Your task to perform on an android device: Clear the cart on bestbuy.com. Add sony triple a to the cart on bestbuy.com Image 0: 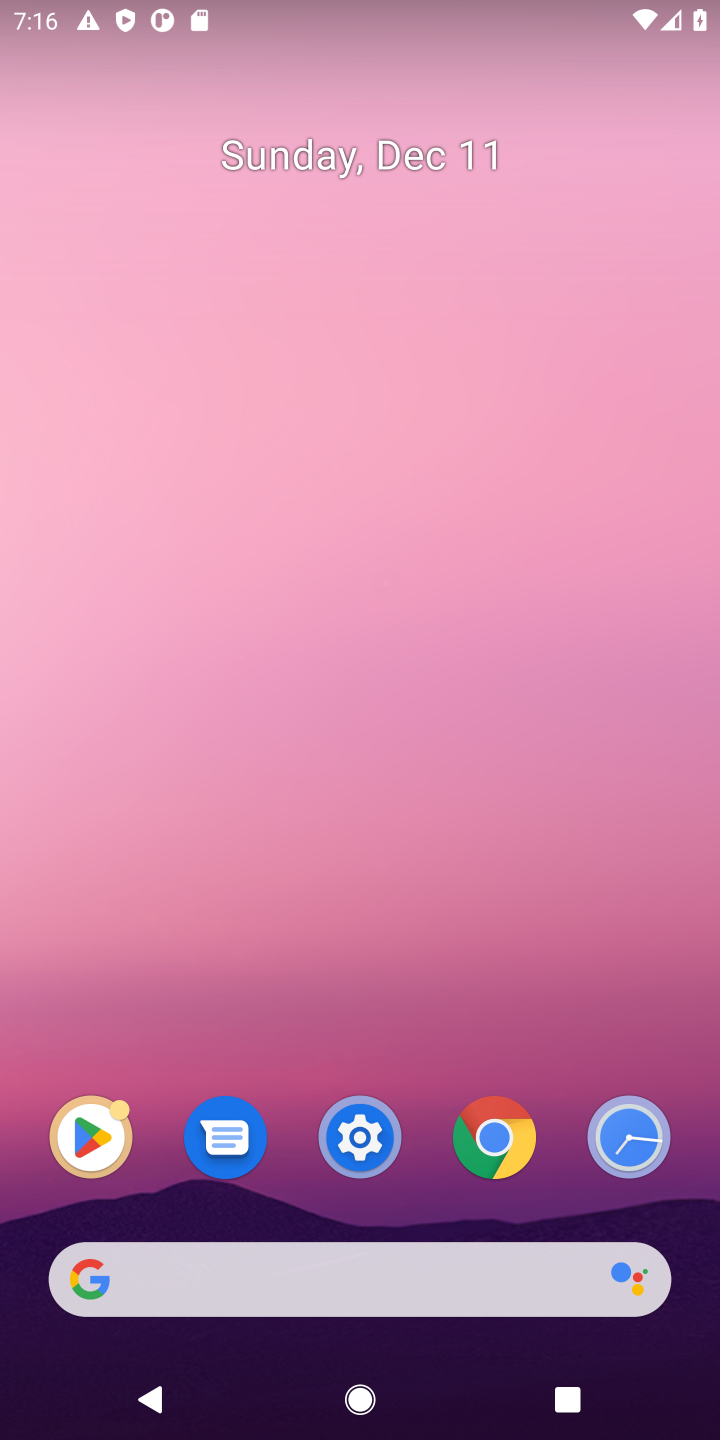
Step 0: click (511, 1138)
Your task to perform on an android device: Clear the cart on bestbuy.com. Add sony triple a to the cart on bestbuy.com Image 1: 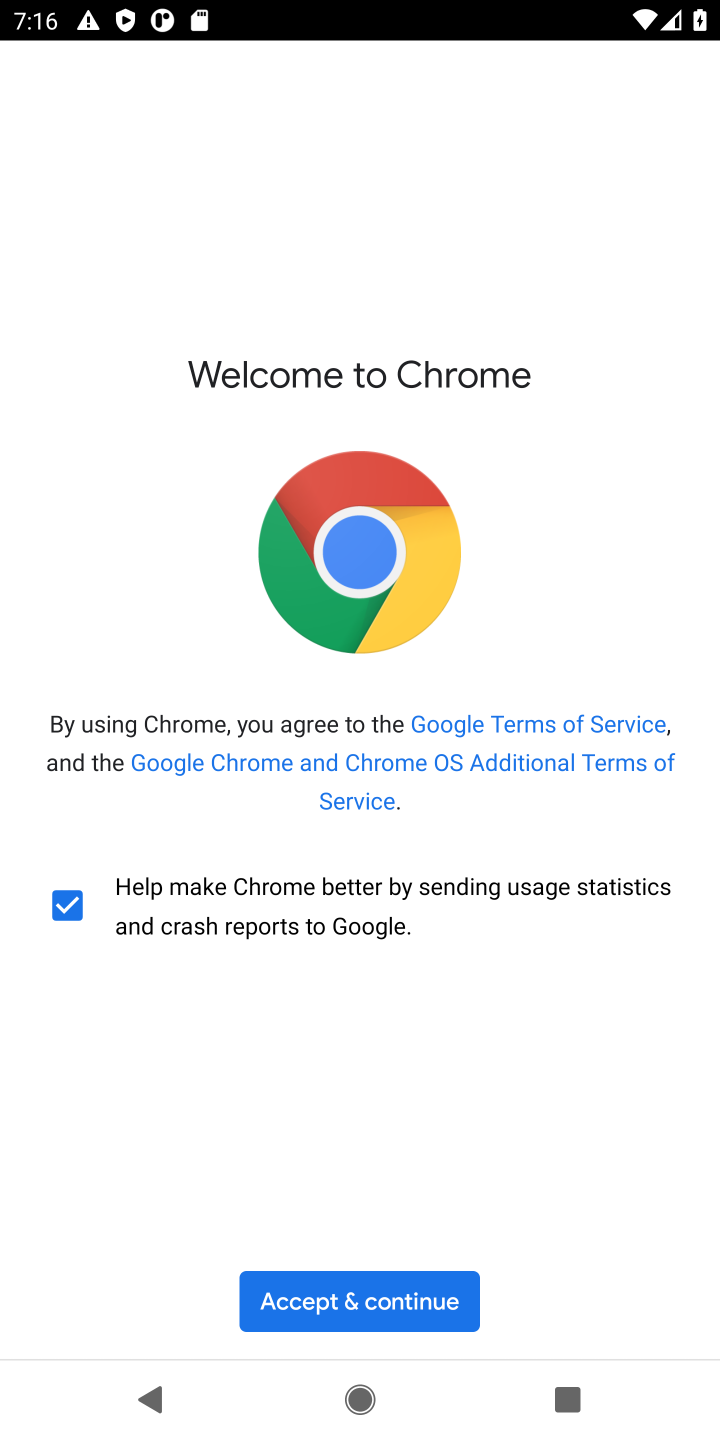
Step 1: click (346, 1304)
Your task to perform on an android device: Clear the cart on bestbuy.com. Add sony triple a to the cart on bestbuy.com Image 2: 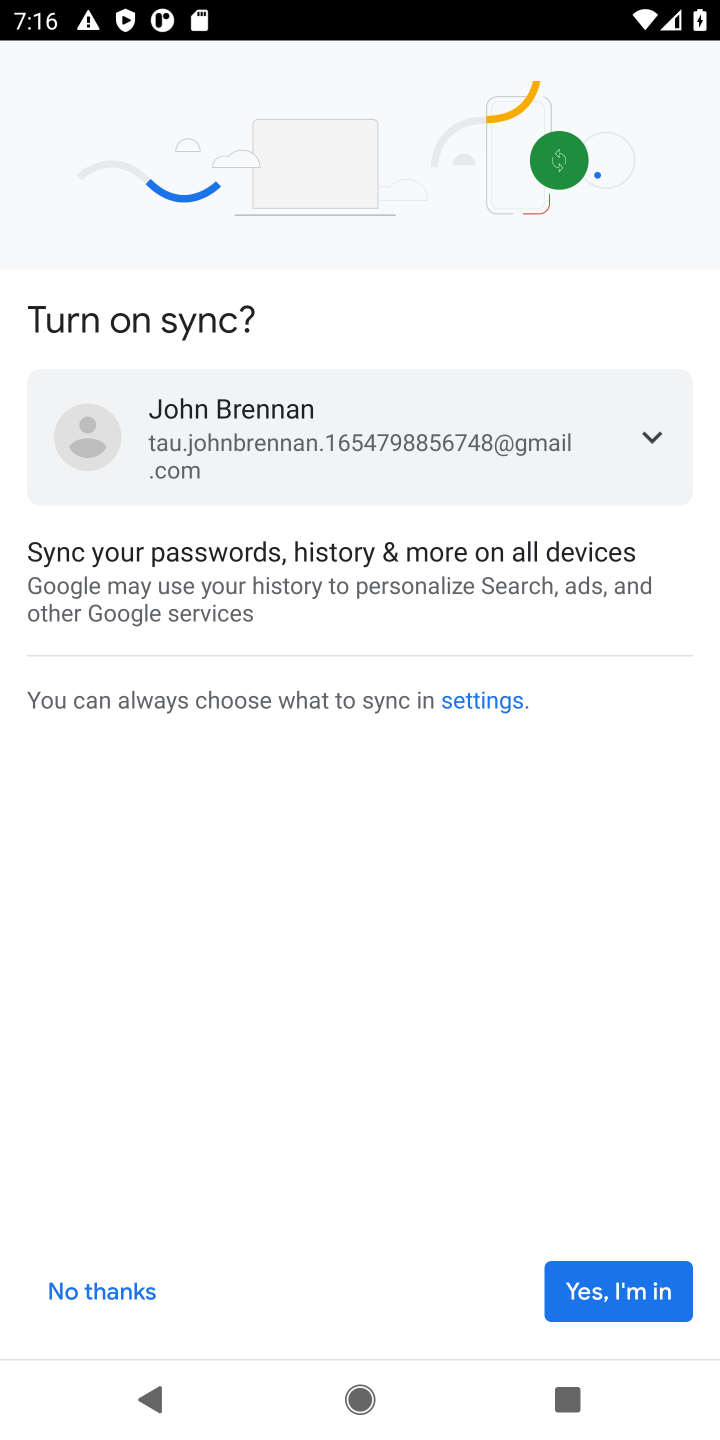
Step 2: click (644, 1289)
Your task to perform on an android device: Clear the cart on bestbuy.com. Add sony triple a to the cart on bestbuy.com Image 3: 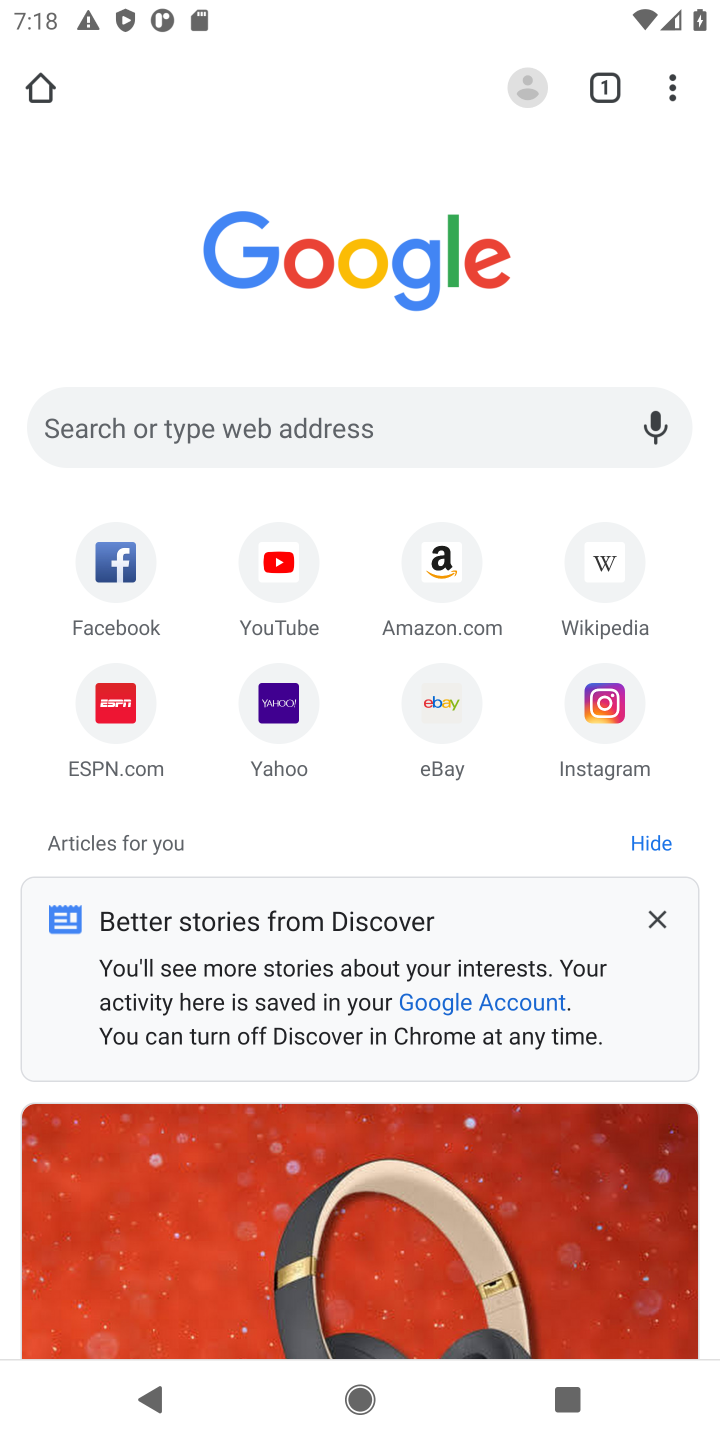
Step 3: click (366, 435)
Your task to perform on an android device: Clear the cart on bestbuy.com. Add sony triple a to the cart on bestbuy.com Image 4: 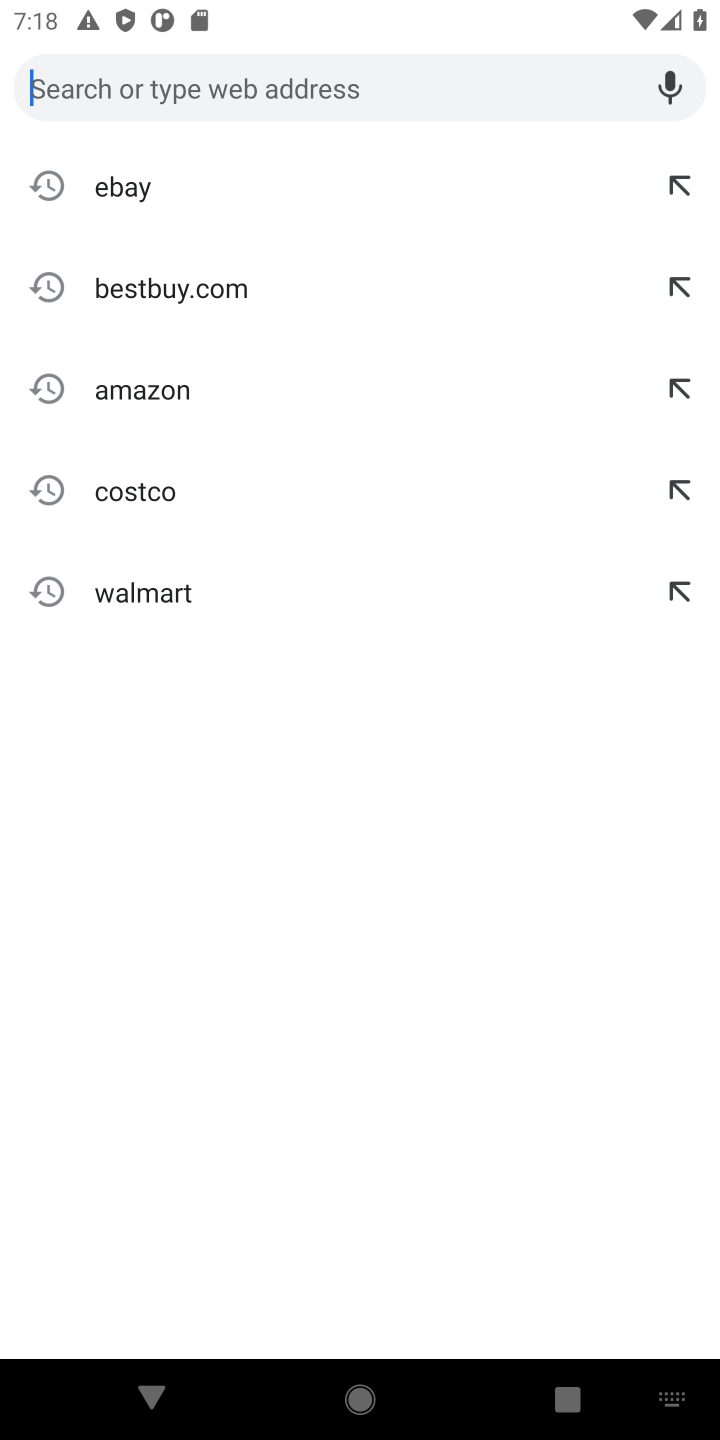
Step 4: click (143, 297)
Your task to perform on an android device: Clear the cart on bestbuy.com. Add sony triple a to the cart on bestbuy.com Image 5: 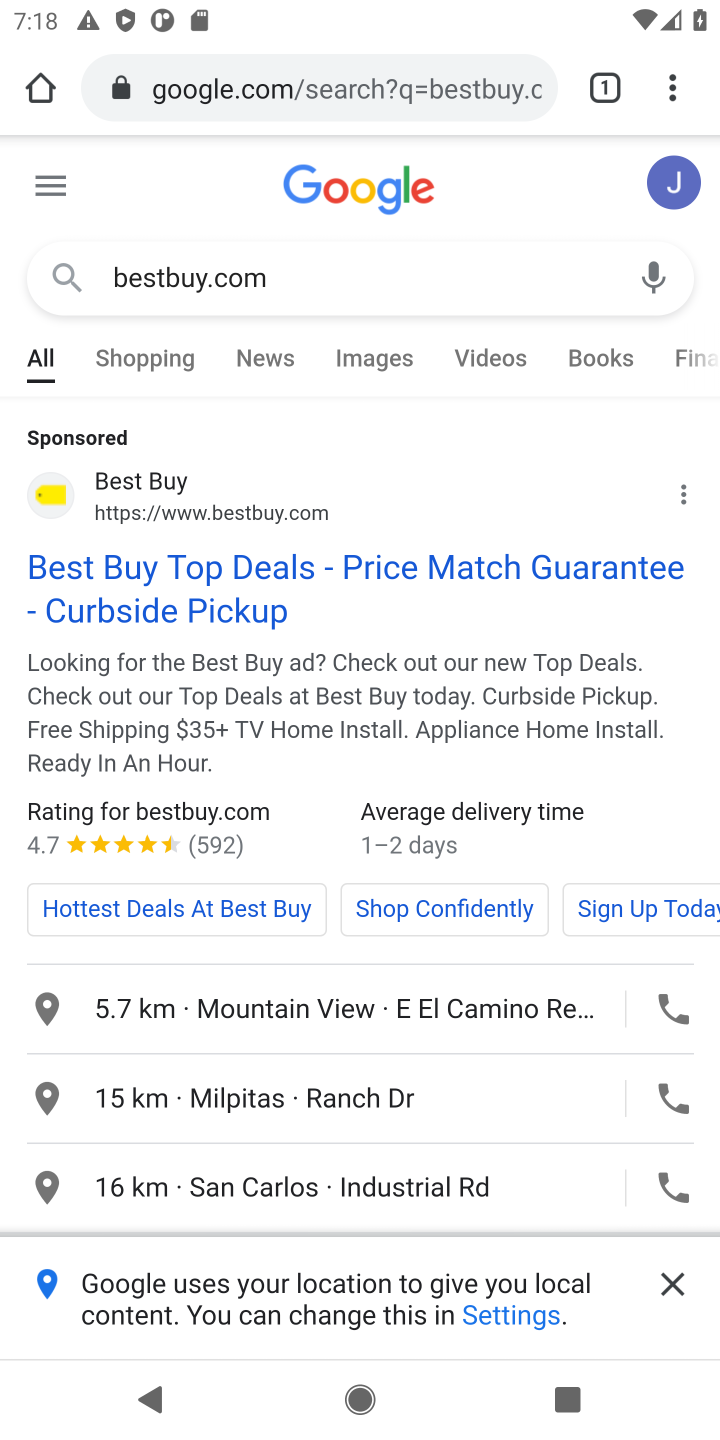
Step 5: click (243, 578)
Your task to perform on an android device: Clear the cart on bestbuy.com. Add sony triple a to the cart on bestbuy.com Image 6: 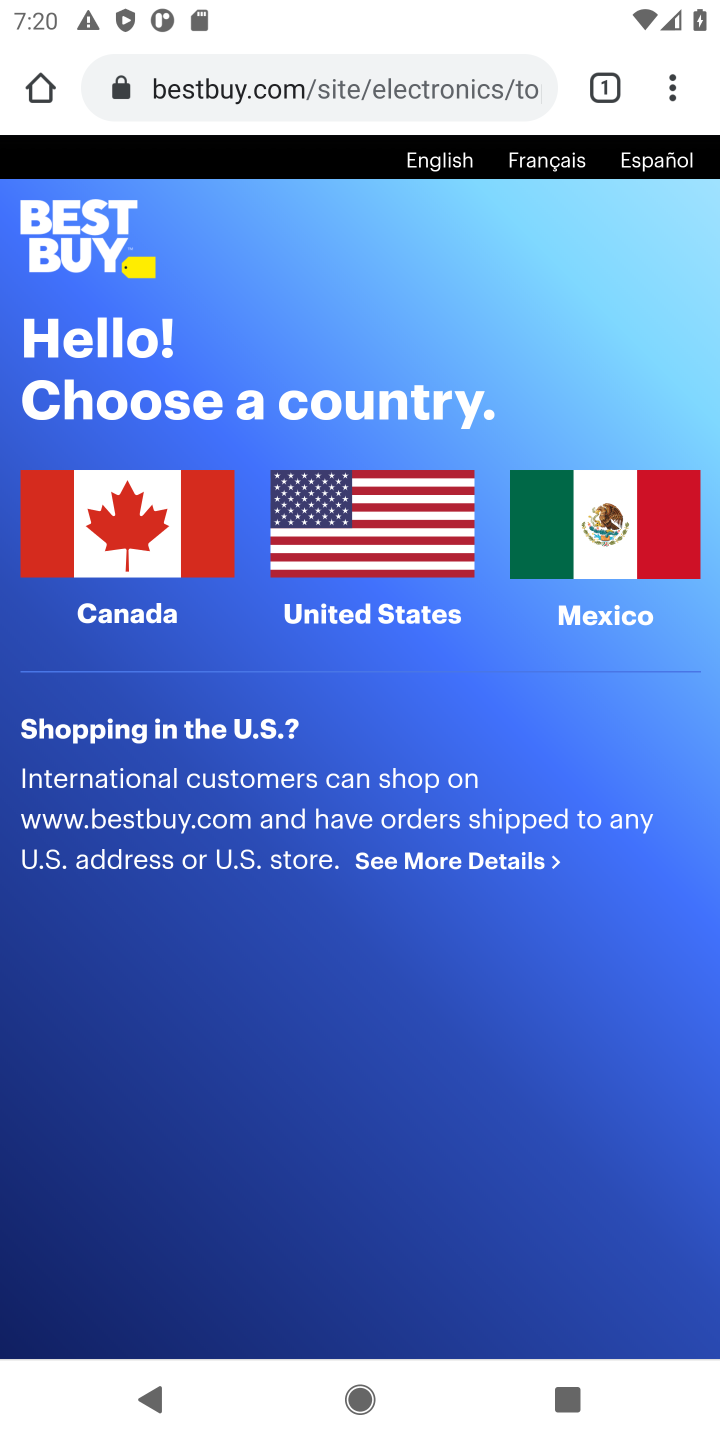
Step 6: click (312, 548)
Your task to perform on an android device: Clear the cart on bestbuy.com. Add sony triple a to the cart on bestbuy.com Image 7: 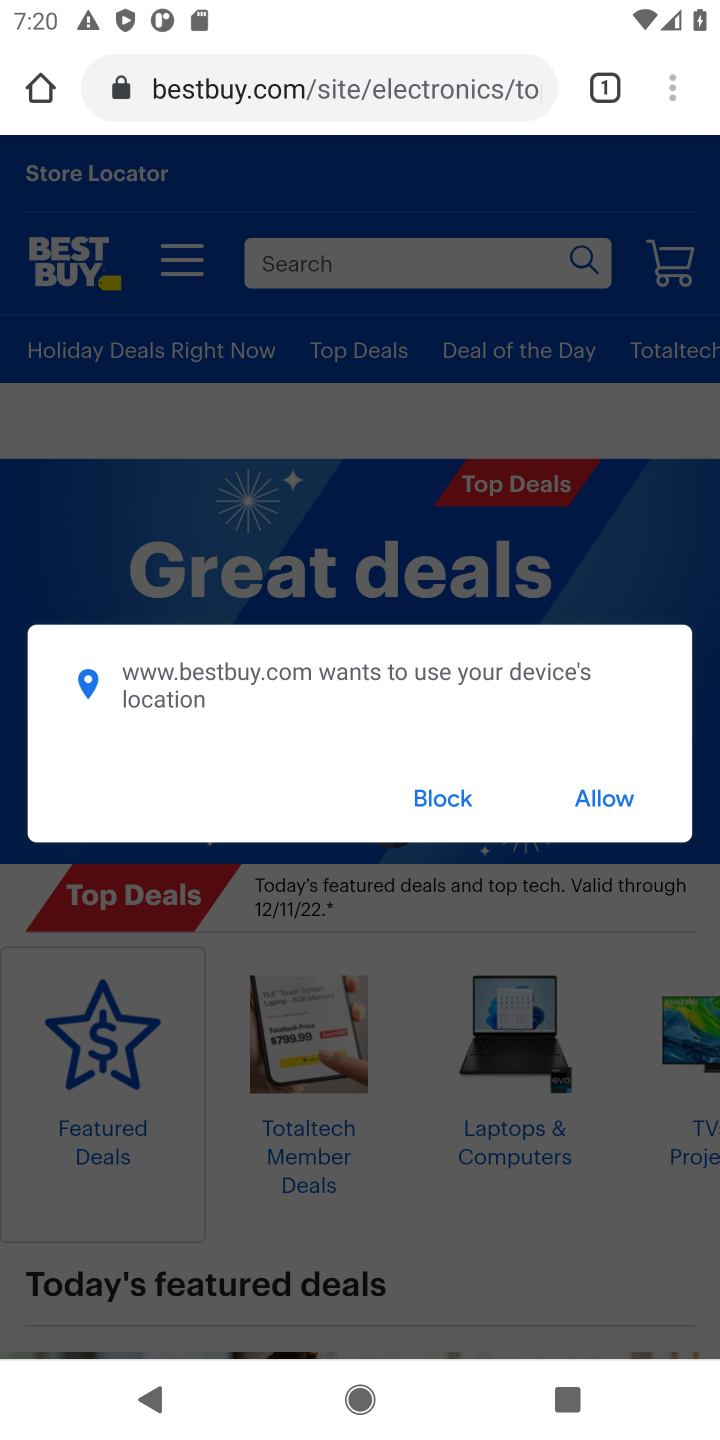
Step 7: click (675, 268)
Your task to perform on an android device: Clear the cart on bestbuy.com. Add sony triple a to the cart on bestbuy.com Image 8: 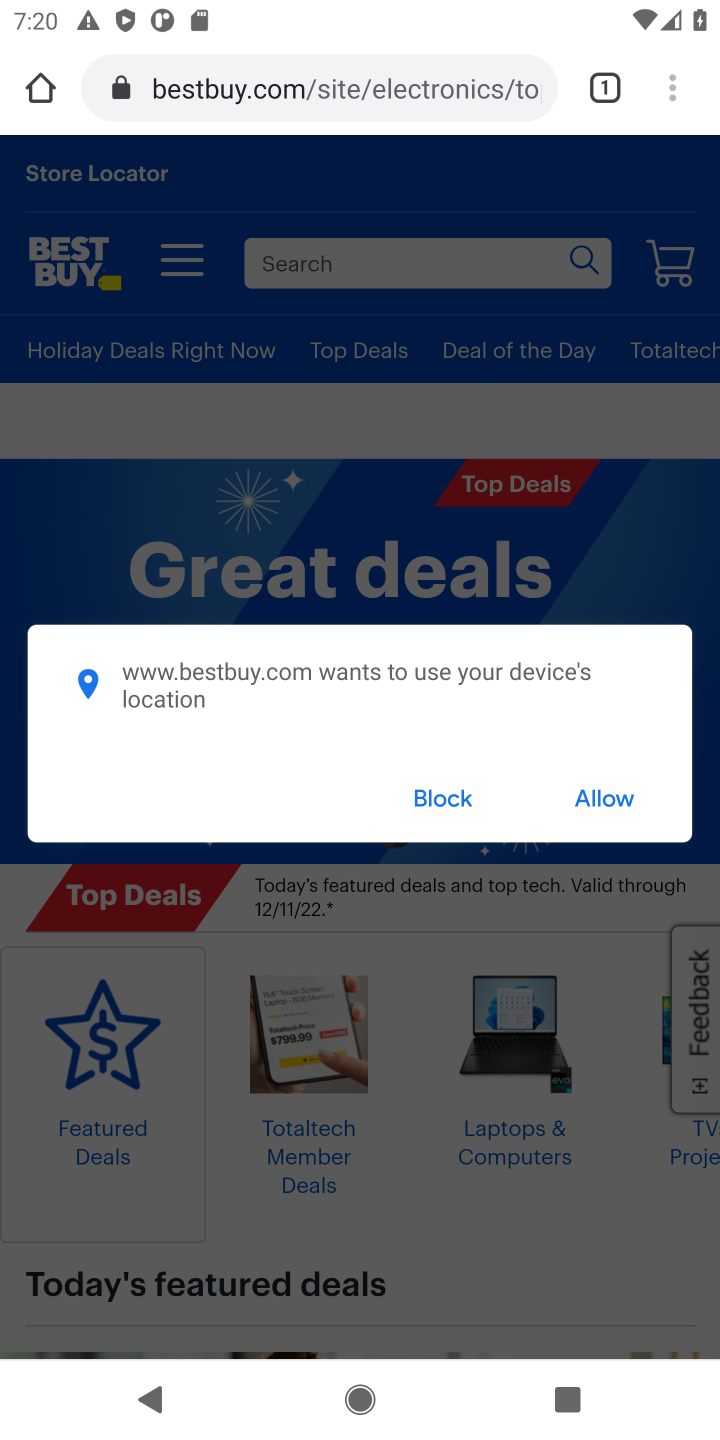
Step 8: click (447, 803)
Your task to perform on an android device: Clear the cart on bestbuy.com. Add sony triple a to the cart on bestbuy.com Image 9: 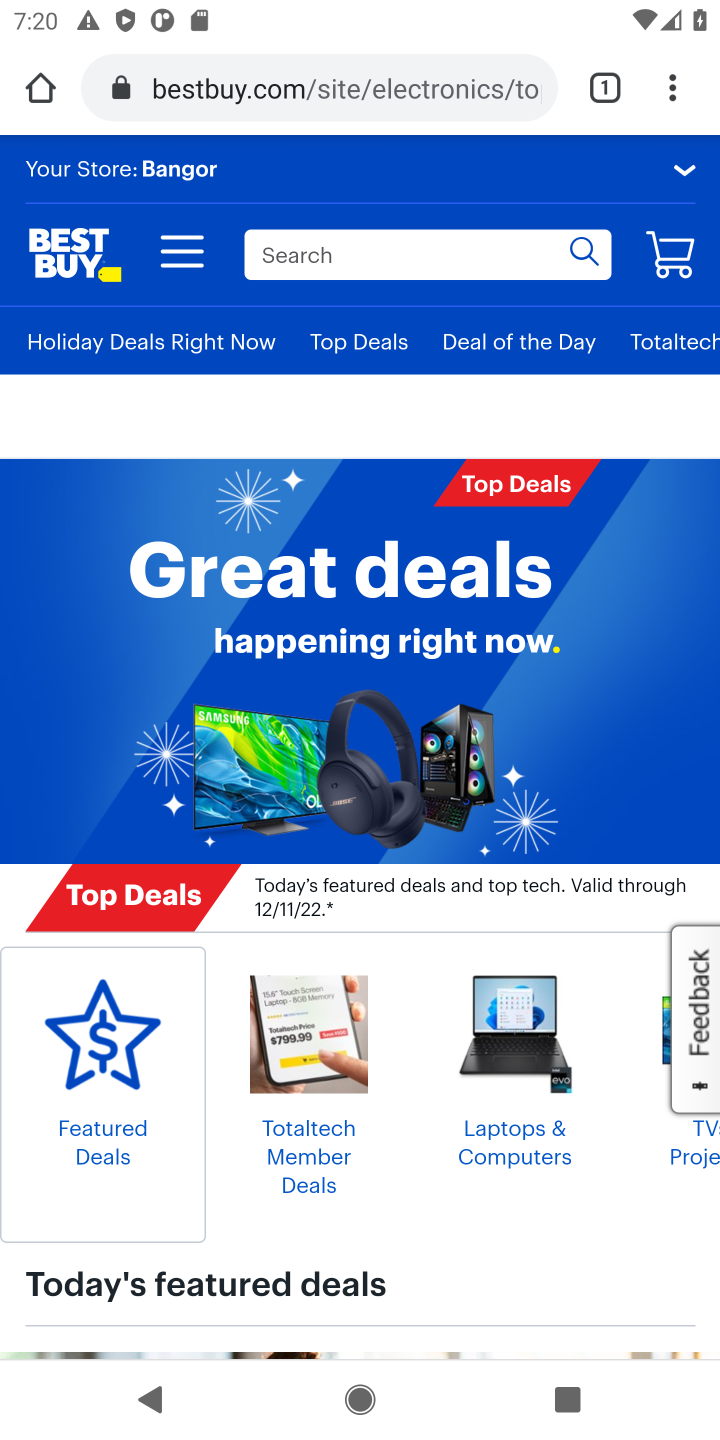
Step 9: click (667, 263)
Your task to perform on an android device: Clear the cart on bestbuy.com. Add sony triple a to the cart on bestbuy.com Image 10: 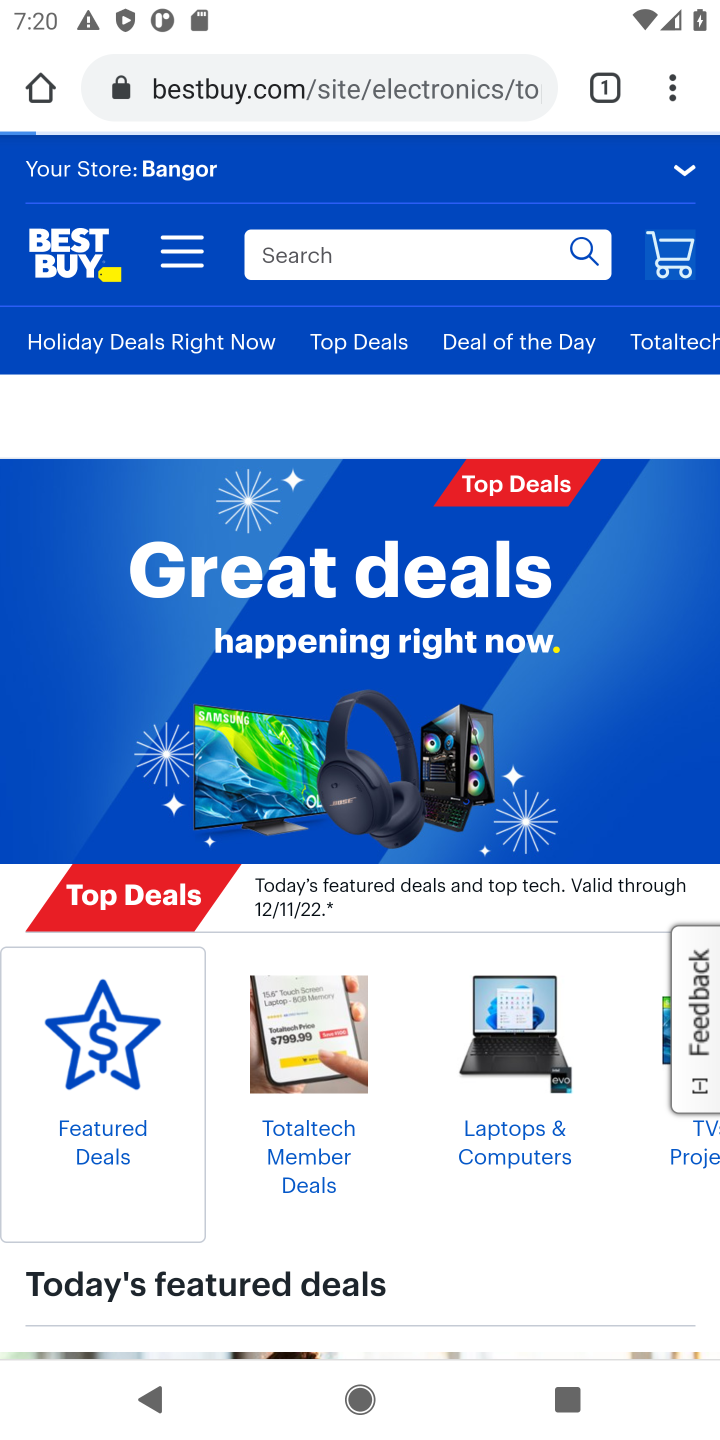
Step 10: click (667, 263)
Your task to perform on an android device: Clear the cart on bestbuy.com. Add sony triple a to the cart on bestbuy.com Image 11: 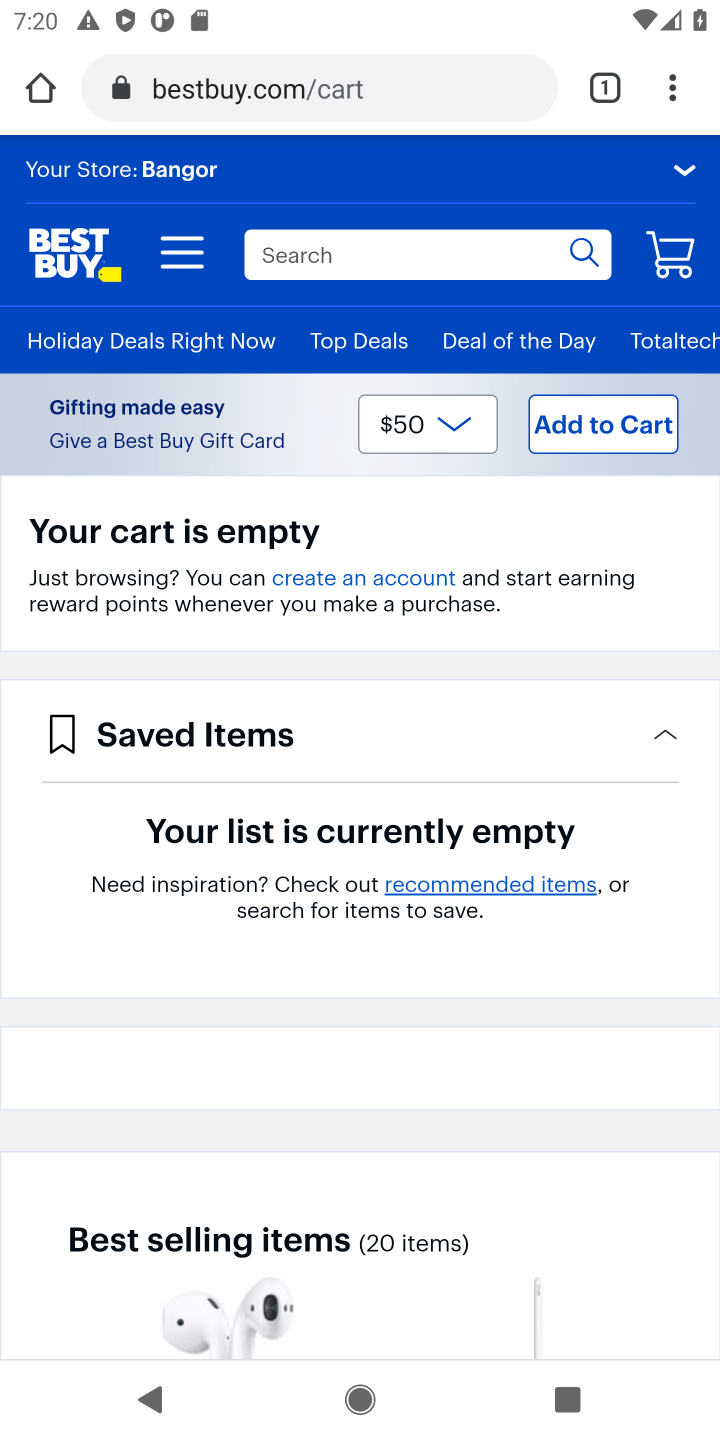
Step 11: click (365, 256)
Your task to perform on an android device: Clear the cart on bestbuy.com. Add sony triple a to the cart on bestbuy.com Image 12: 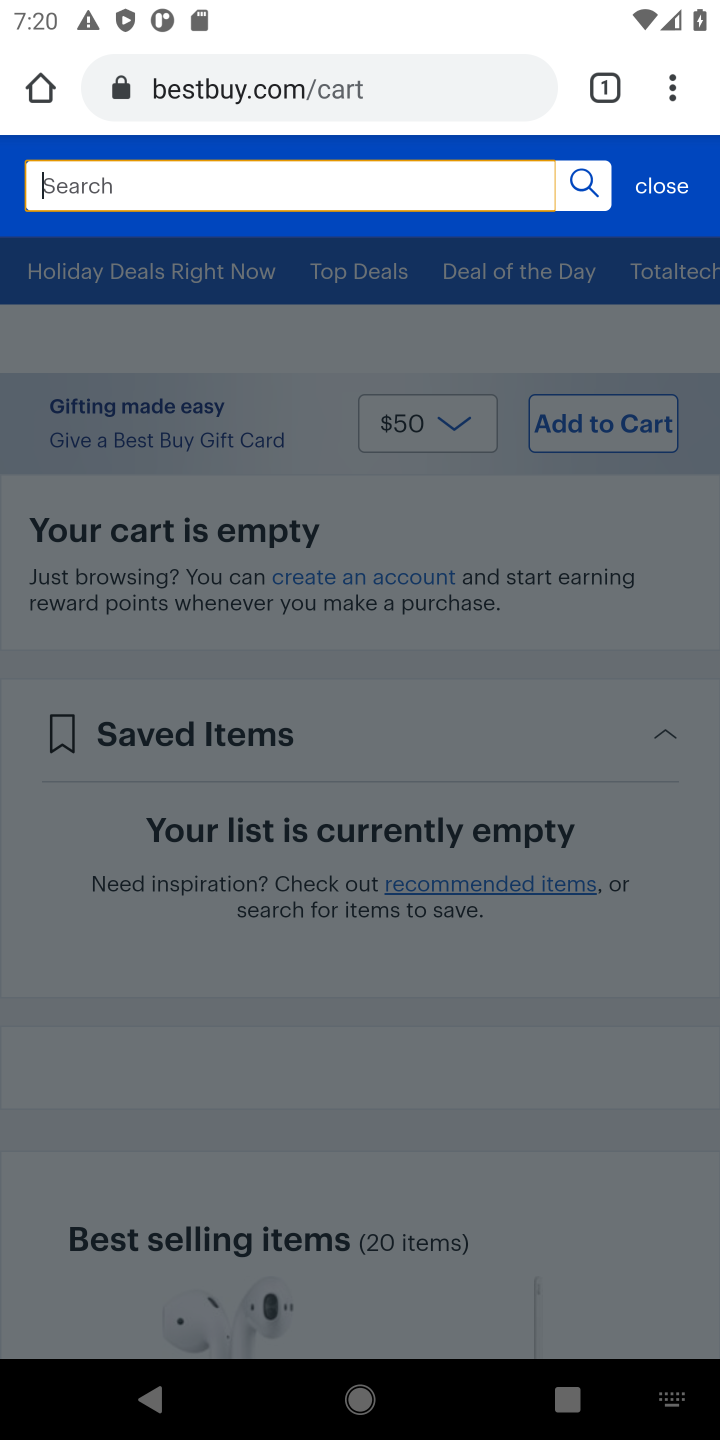
Step 12: type "sony triple a"
Your task to perform on an android device: Clear the cart on bestbuy.com. Add sony triple a to the cart on bestbuy.com Image 13: 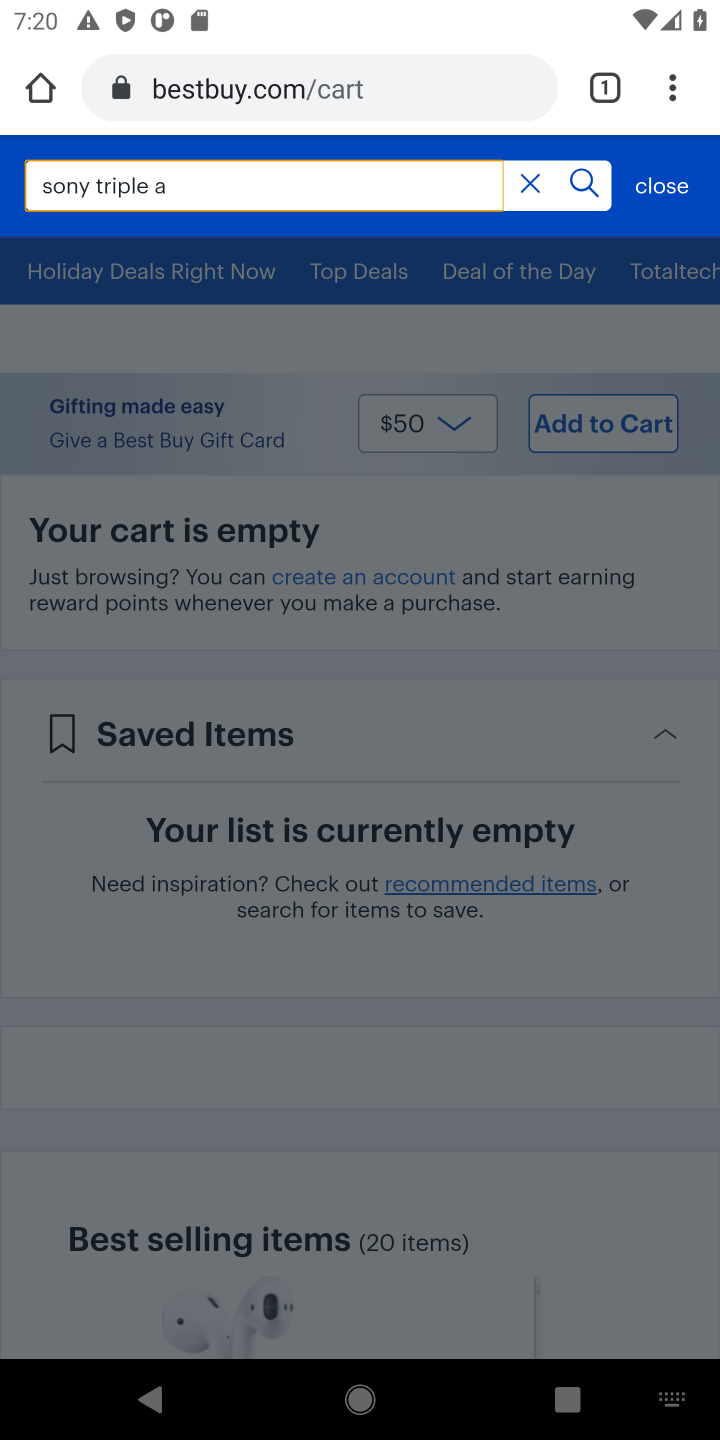
Step 13: click (581, 182)
Your task to perform on an android device: Clear the cart on bestbuy.com. Add sony triple a to the cart on bestbuy.com Image 14: 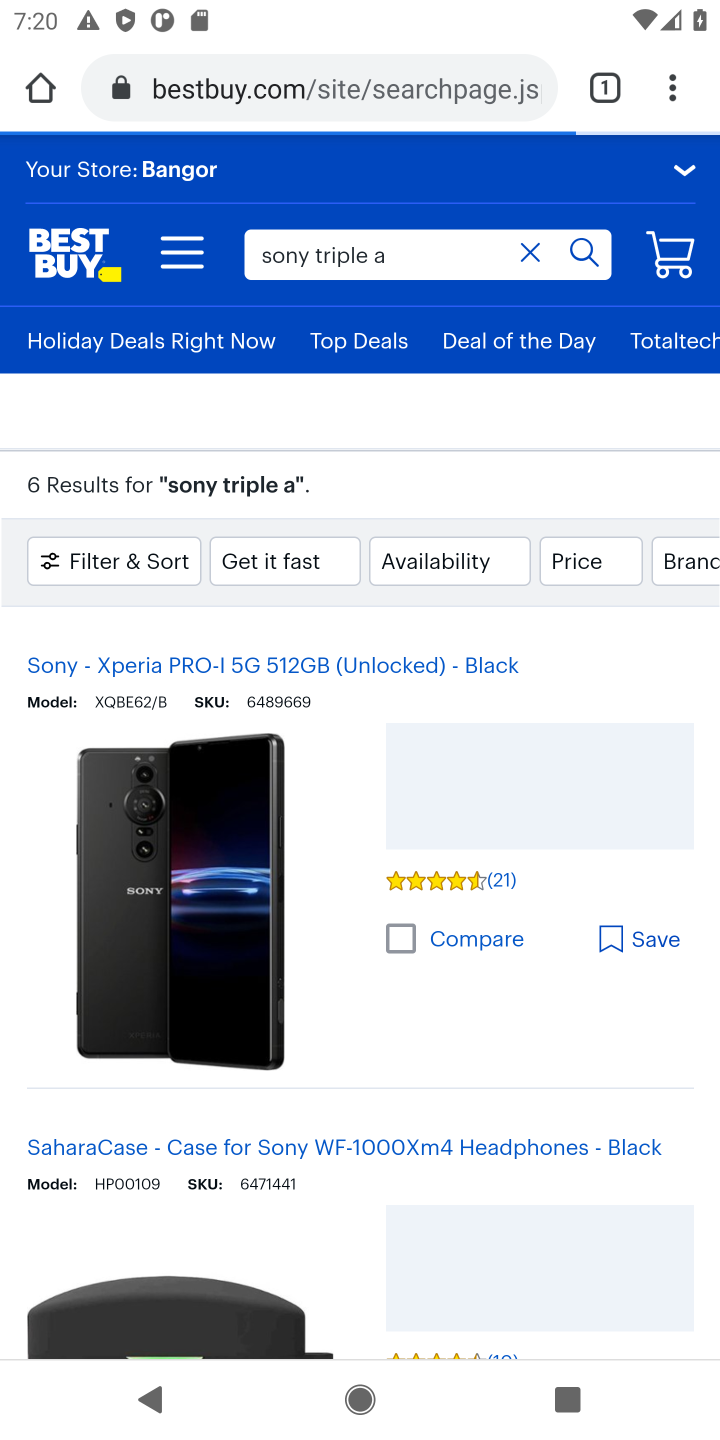
Step 14: click (332, 951)
Your task to perform on an android device: Clear the cart on bestbuy.com. Add sony triple a to the cart on bestbuy.com Image 15: 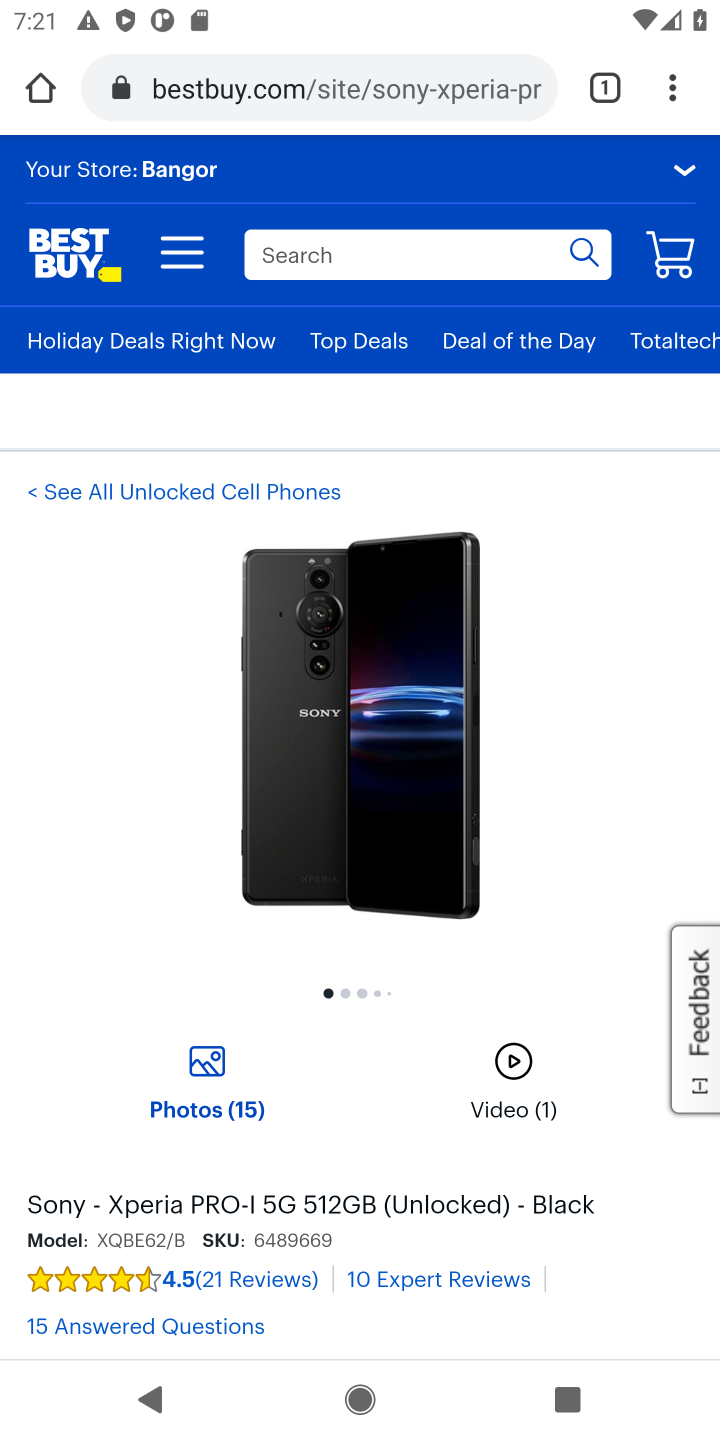
Step 15: drag from (390, 1261) to (499, 325)
Your task to perform on an android device: Clear the cart on bestbuy.com. Add sony triple a to the cart on bestbuy.com Image 16: 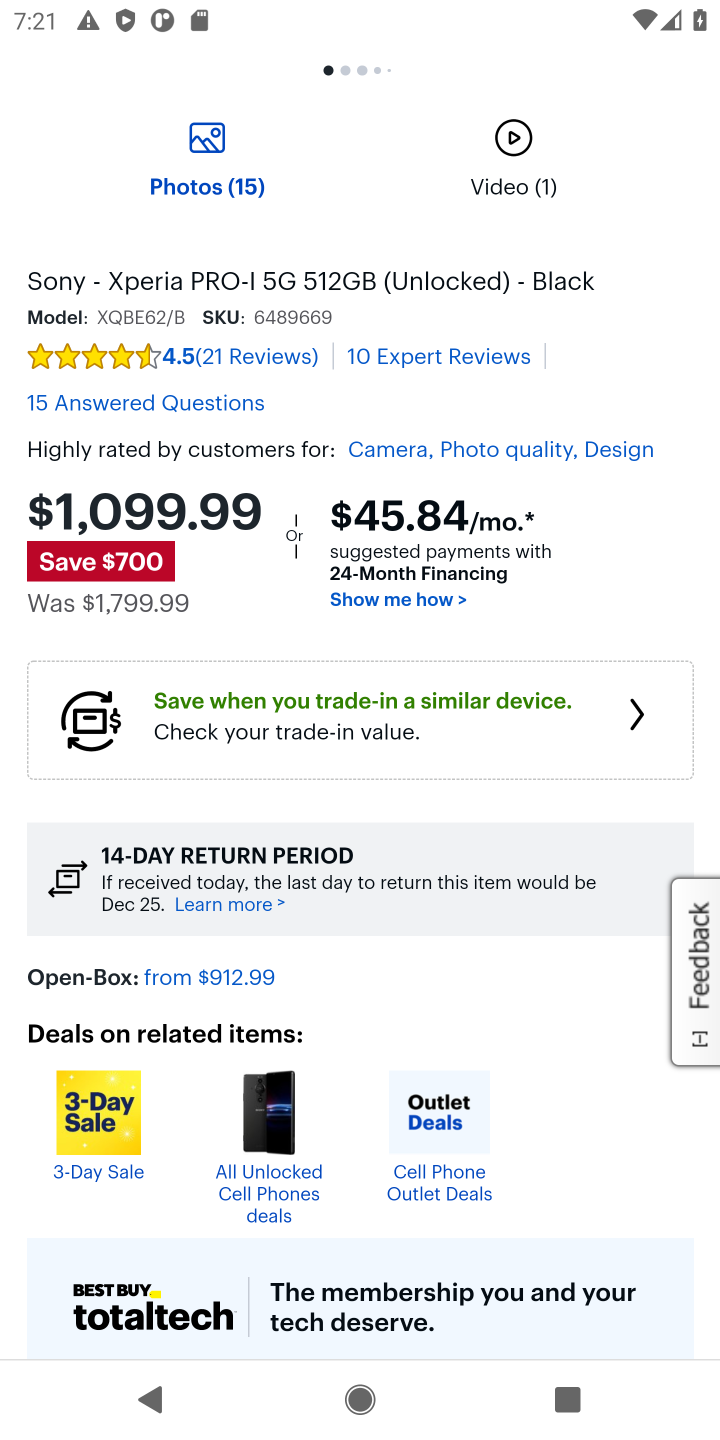
Step 16: drag from (517, 1220) to (490, 178)
Your task to perform on an android device: Clear the cart on bestbuy.com. Add sony triple a to the cart on bestbuy.com Image 17: 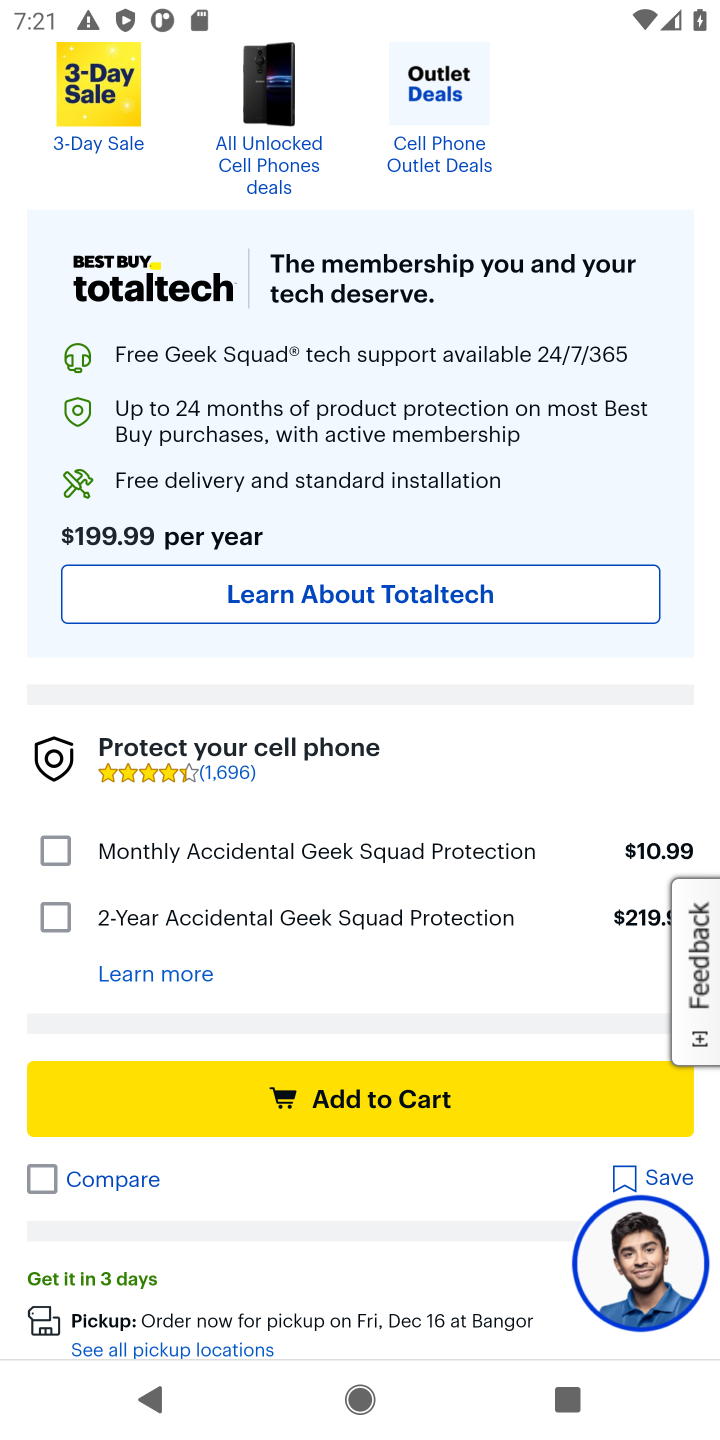
Step 17: click (381, 1101)
Your task to perform on an android device: Clear the cart on bestbuy.com. Add sony triple a to the cart on bestbuy.com Image 18: 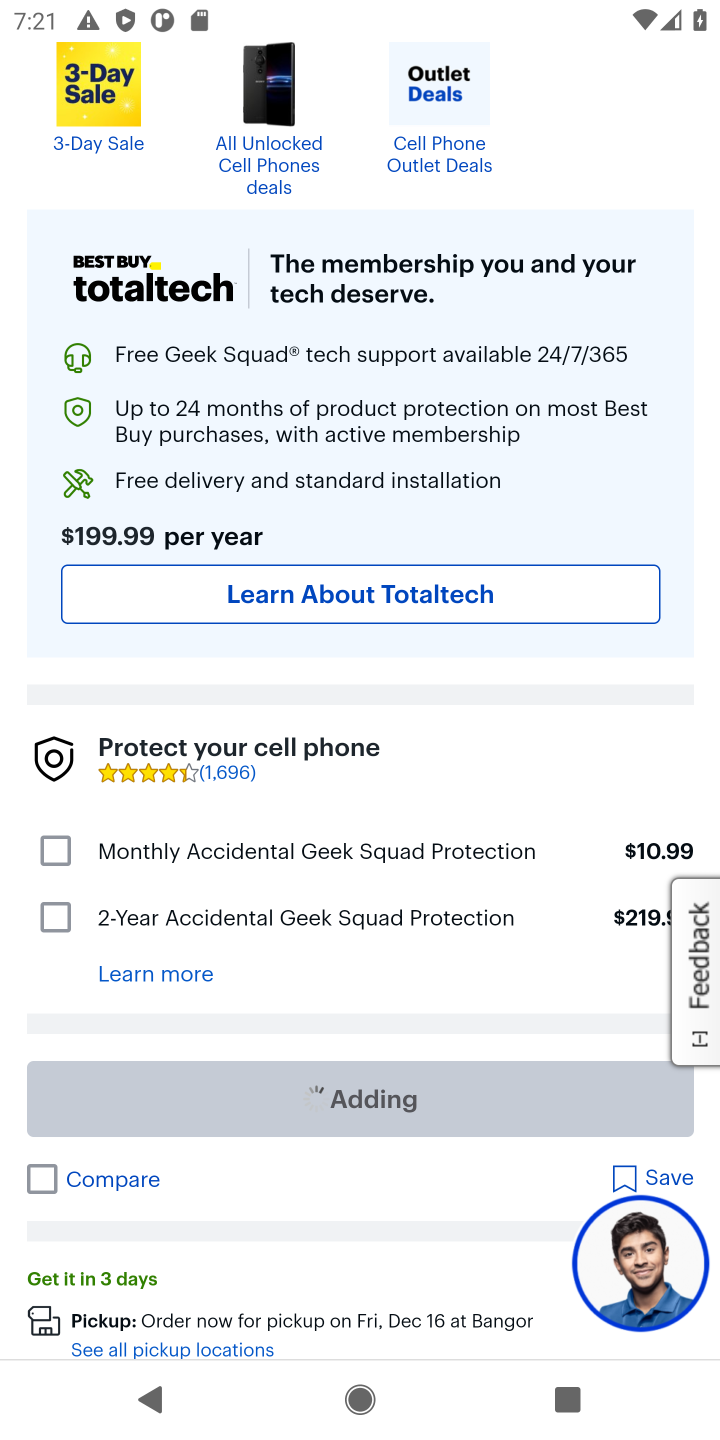
Step 18: task complete